Your task to perform on an android device: Do I have any events today? Image 0: 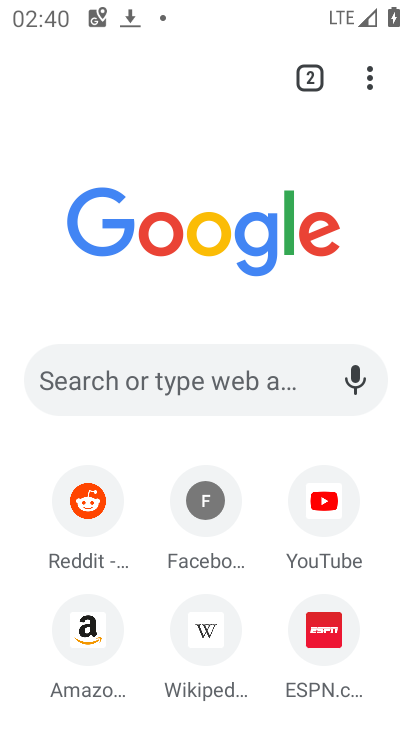
Step 0: click (400, 631)
Your task to perform on an android device: Do I have any events today? Image 1: 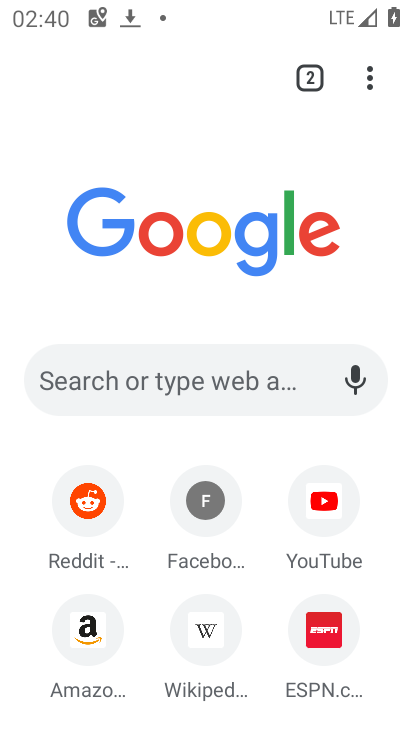
Step 1: press home button
Your task to perform on an android device: Do I have any events today? Image 2: 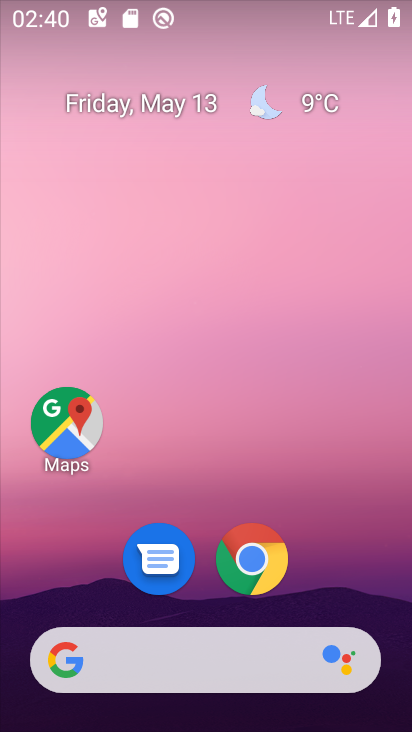
Step 2: drag from (398, 652) to (366, 497)
Your task to perform on an android device: Do I have any events today? Image 3: 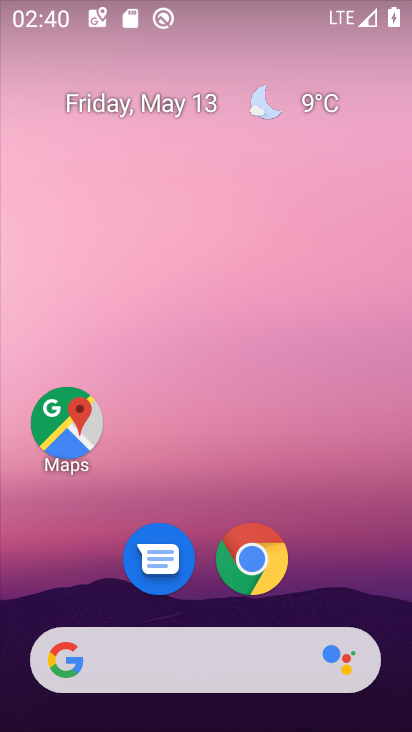
Step 3: drag from (400, 649) to (294, 188)
Your task to perform on an android device: Do I have any events today? Image 4: 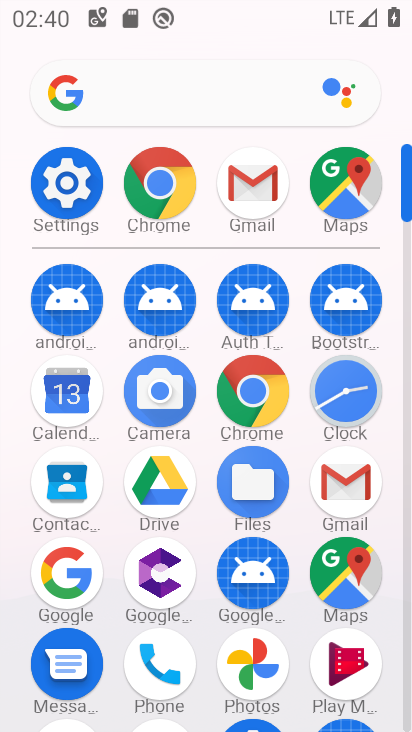
Step 4: click (80, 392)
Your task to perform on an android device: Do I have any events today? Image 5: 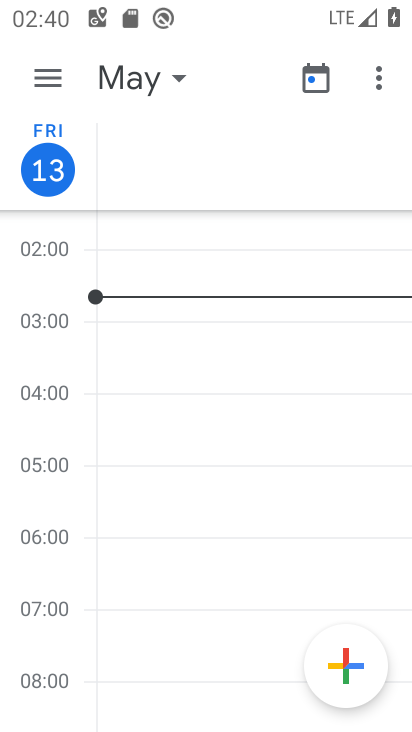
Step 5: click (56, 164)
Your task to perform on an android device: Do I have any events today? Image 6: 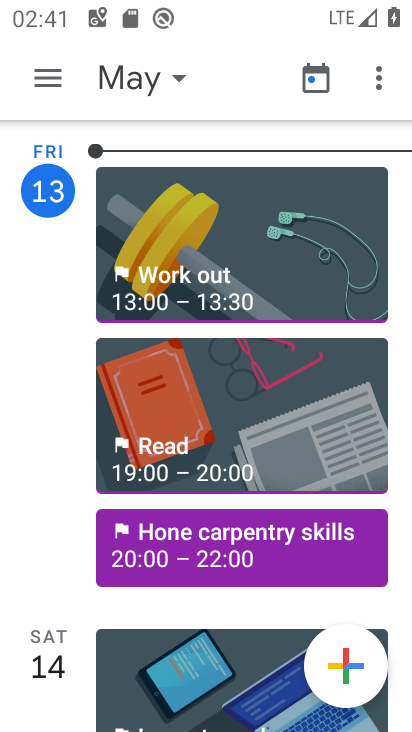
Step 6: task complete